Your task to perform on an android device: Open Youtube and go to "Your channel" Image 0: 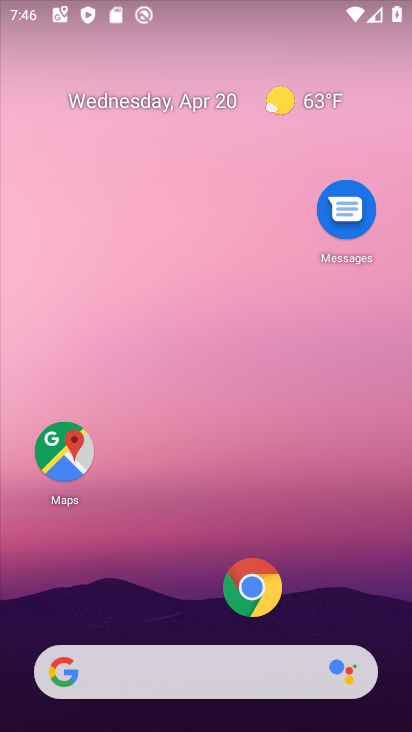
Step 0: drag from (156, 667) to (401, 10)
Your task to perform on an android device: Open Youtube and go to "Your channel" Image 1: 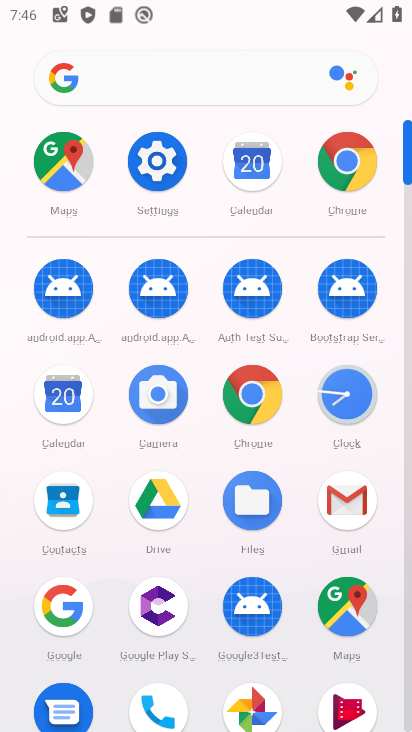
Step 1: drag from (205, 571) to (411, 69)
Your task to perform on an android device: Open Youtube and go to "Your channel" Image 2: 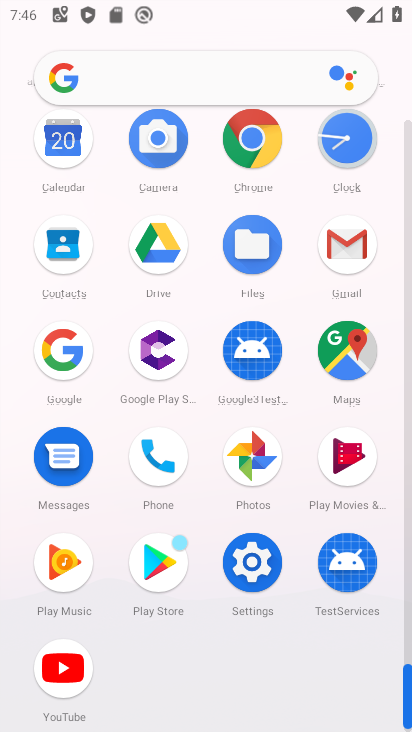
Step 2: click (60, 672)
Your task to perform on an android device: Open Youtube and go to "Your channel" Image 3: 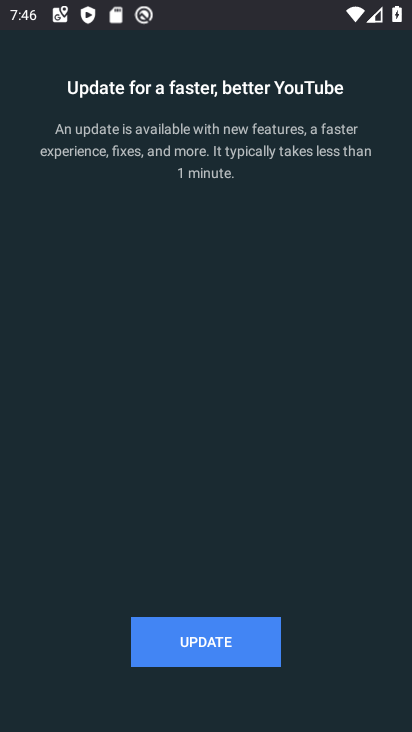
Step 3: click (218, 641)
Your task to perform on an android device: Open Youtube and go to "Your channel" Image 4: 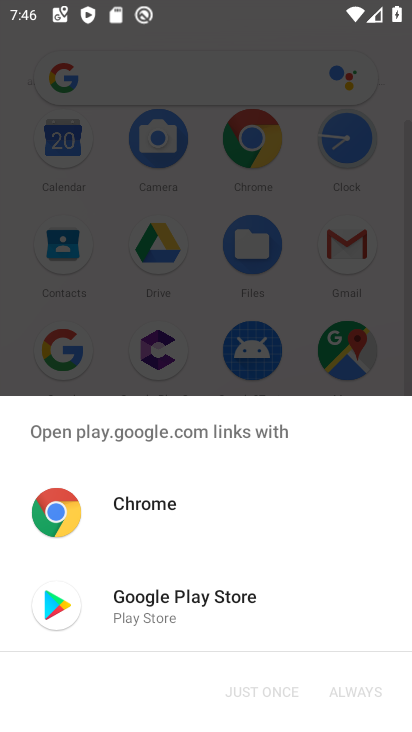
Step 4: click (140, 611)
Your task to perform on an android device: Open Youtube and go to "Your channel" Image 5: 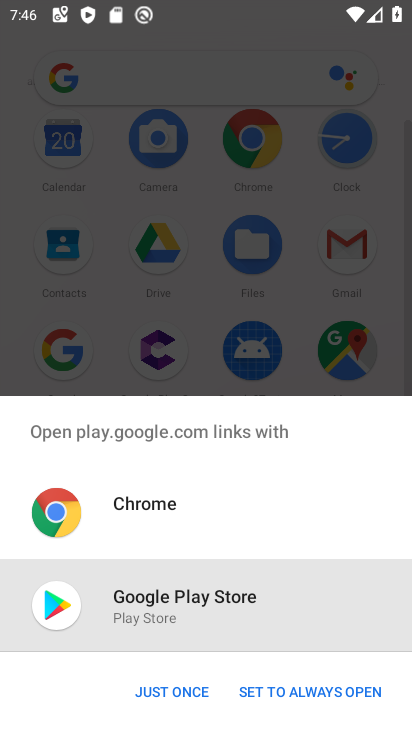
Step 5: click (155, 695)
Your task to perform on an android device: Open Youtube and go to "Your channel" Image 6: 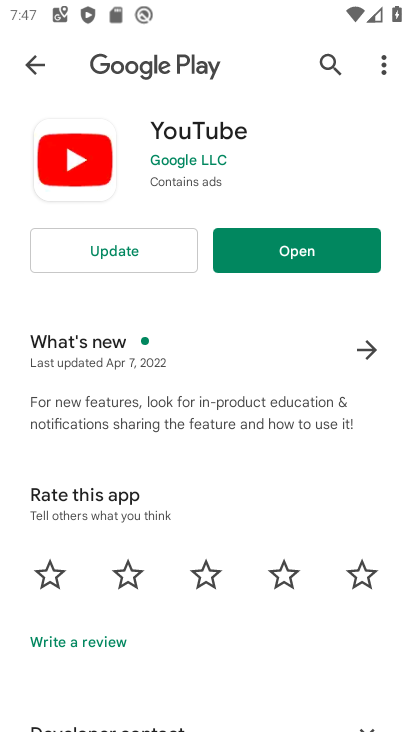
Step 6: click (138, 252)
Your task to perform on an android device: Open Youtube and go to "Your channel" Image 7: 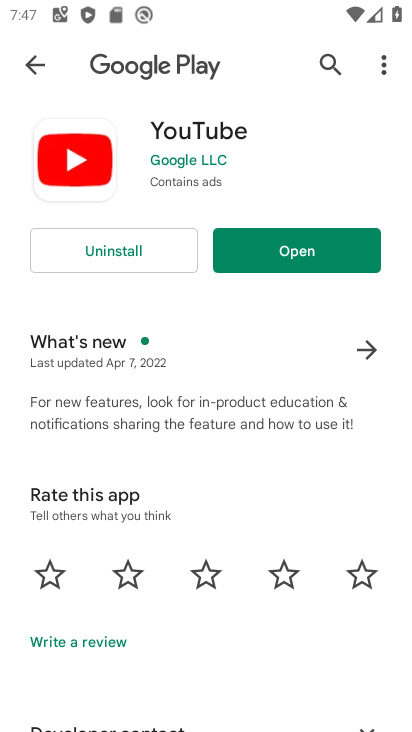
Step 7: click (270, 255)
Your task to perform on an android device: Open Youtube and go to "Your channel" Image 8: 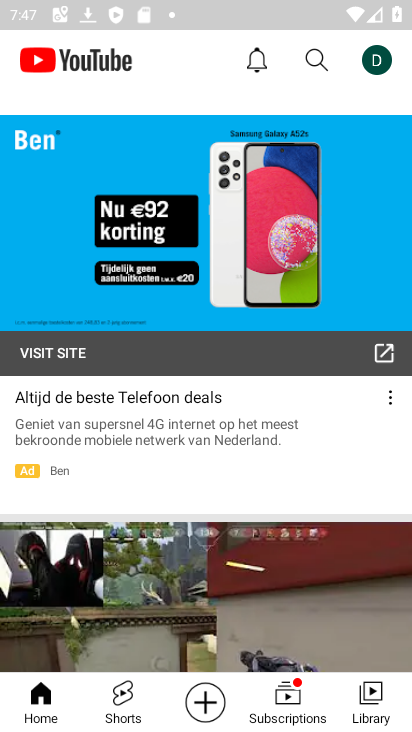
Step 8: click (371, 698)
Your task to perform on an android device: Open Youtube and go to "Your channel" Image 9: 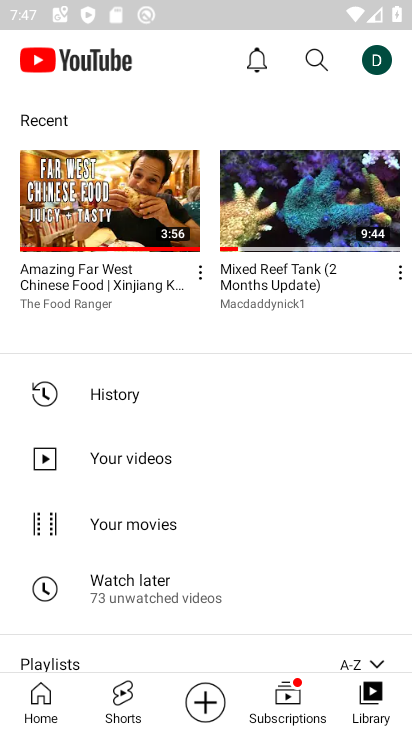
Step 9: drag from (269, 563) to (373, 135)
Your task to perform on an android device: Open Youtube and go to "Your channel" Image 10: 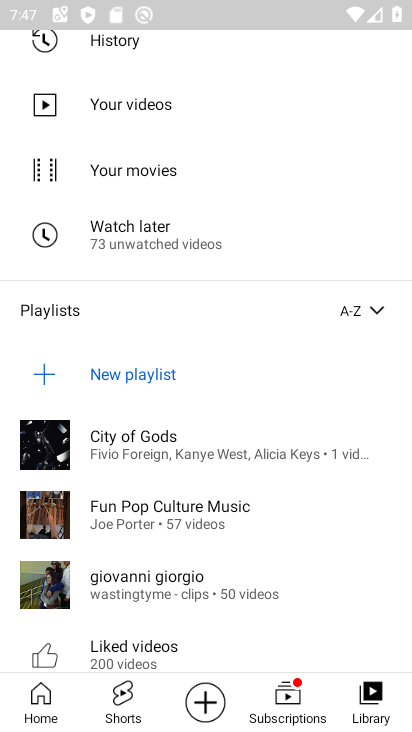
Step 10: drag from (240, 580) to (347, 125)
Your task to perform on an android device: Open Youtube and go to "Your channel" Image 11: 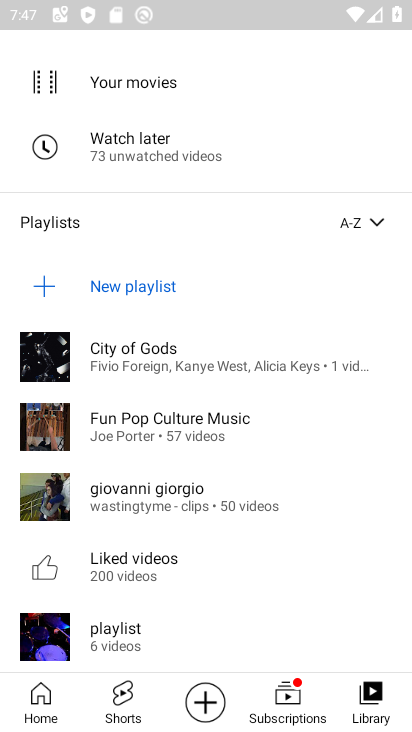
Step 11: drag from (283, 140) to (237, 584)
Your task to perform on an android device: Open Youtube and go to "Your channel" Image 12: 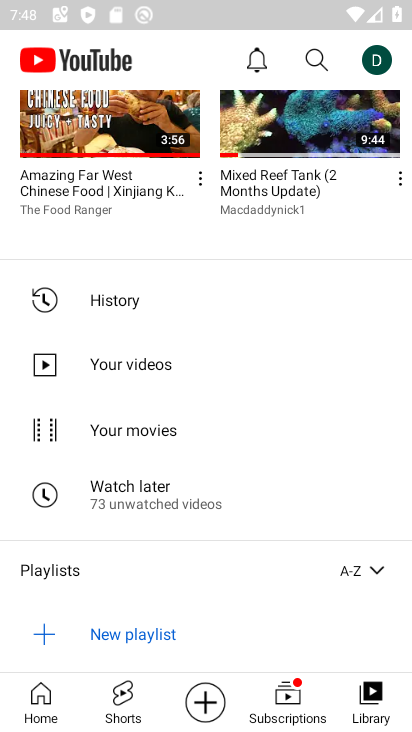
Step 12: click (139, 358)
Your task to perform on an android device: Open Youtube and go to "Your channel" Image 13: 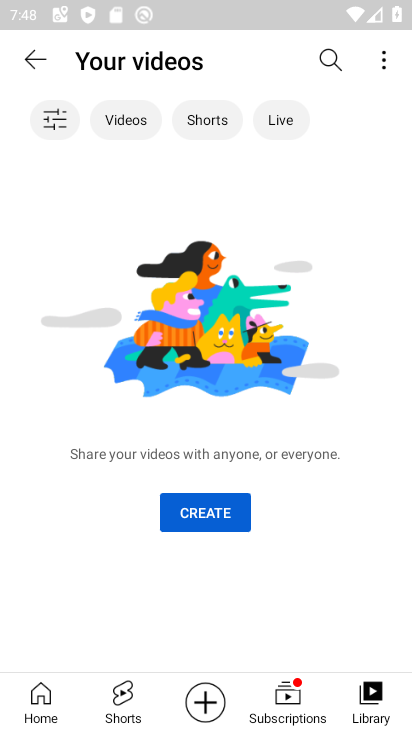
Step 13: click (32, 62)
Your task to perform on an android device: Open Youtube and go to "Your channel" Image 14: 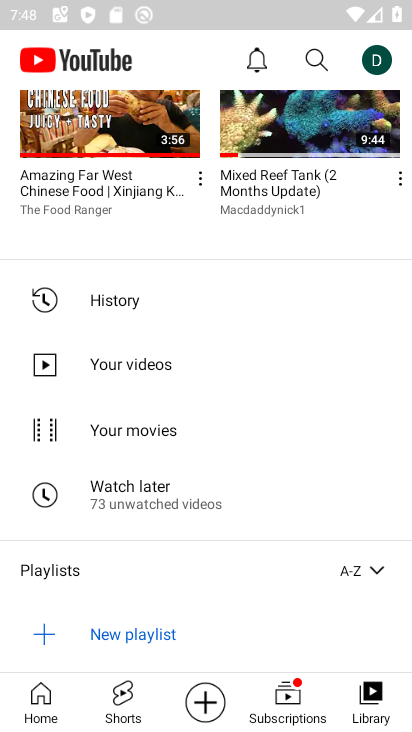
Step 14: task complete